Your task to perform on an android device: check data usage Image 0: 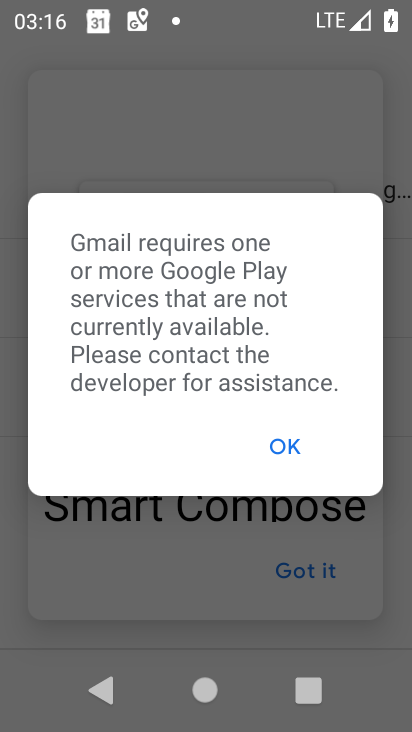
Step 0: click (287, 458)
Your task to perform on an android device: check data usage Image 1: 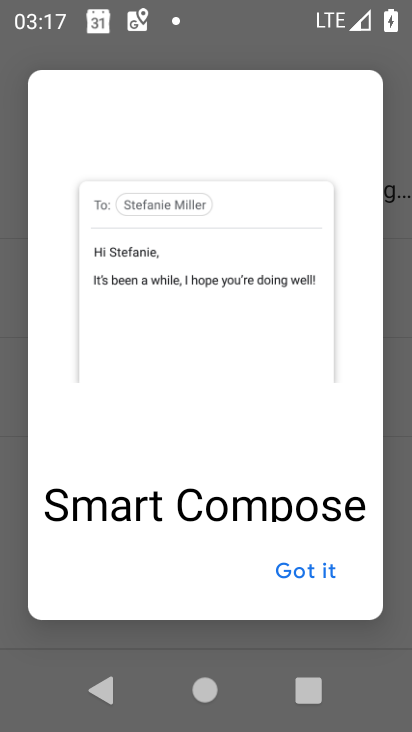
Step 1: press home button
Your task to perform on an android device: check data usage Image 2: 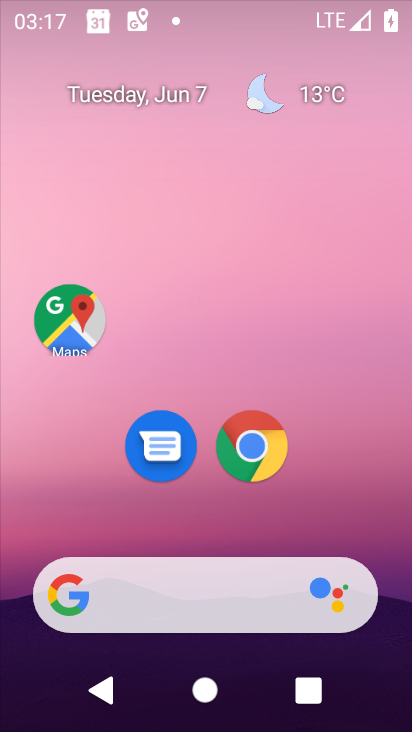
Step 2: drag from (253, 651) to (355, 13)
Your task to perform on an android device: check data usage Image 3: 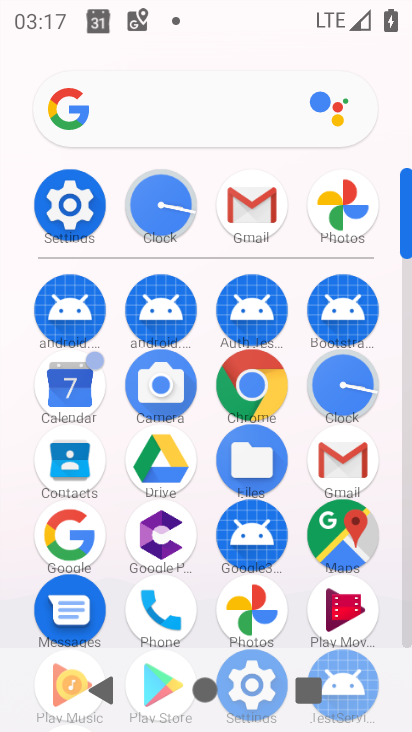
Step 3: click (65, 205)
Your task to perform on an android device: check data usage Image 4: 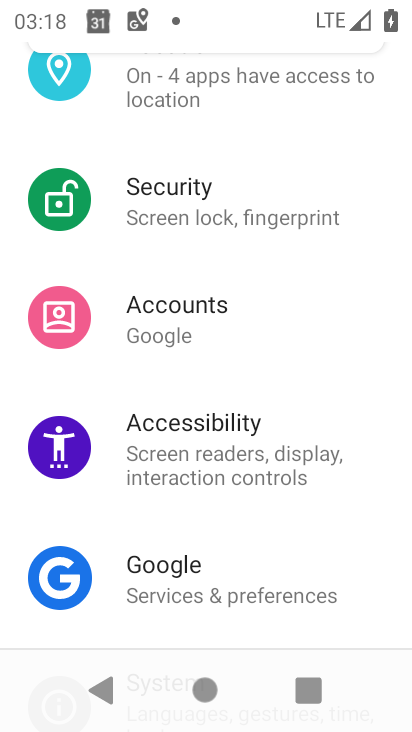
Step 4: drag from (362, 99) to (268, 657)
Your task to perform on an android device: check data usage Image 5: 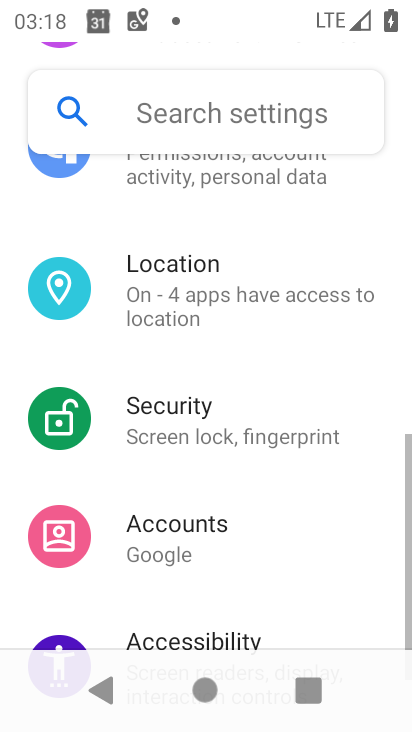
Step 5: drag from (327, 180) to (259, 654)
Your task to perform on an android device: check data usage Image 6: 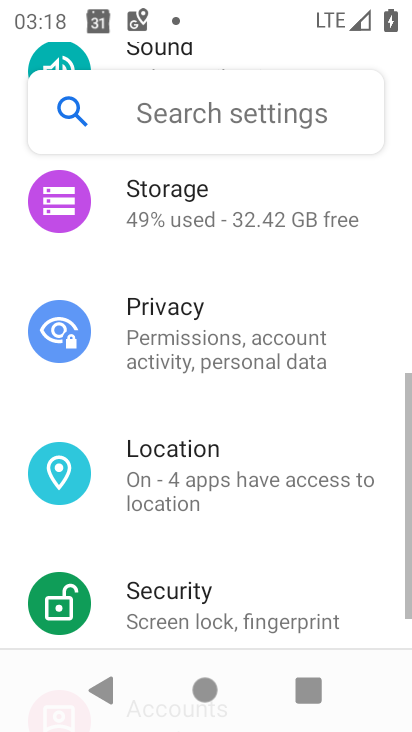
Step 6: drag from (340, 235) to (287, 613)
Your task to perform on an android device: check data usage Image 7: 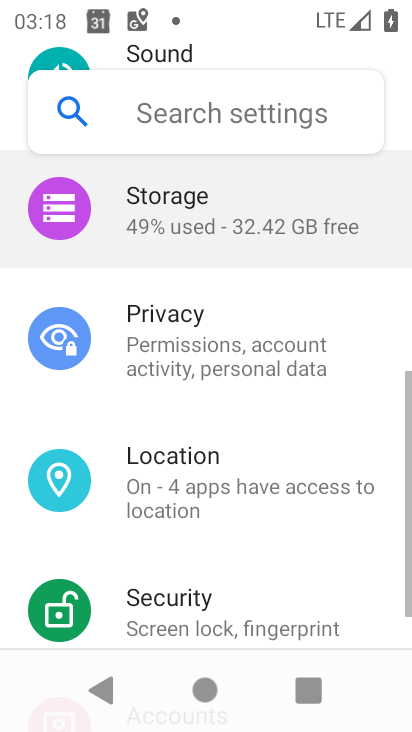
Step 7: drag from (313, 309) to (249, 713)
Your task to perform on an android device: check data usage Image 8: 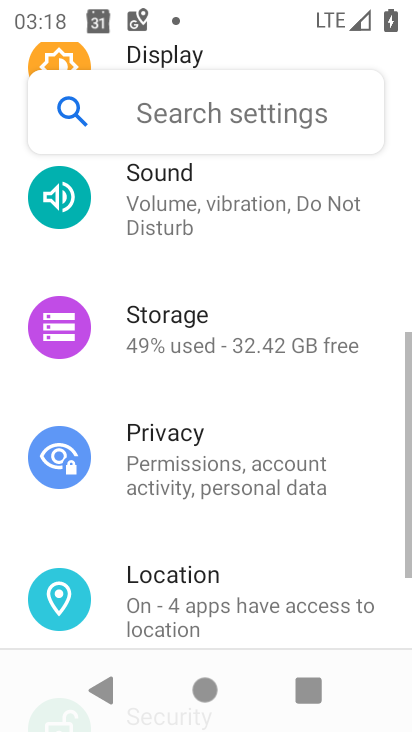
Step 8: drag from (281, 514) to (264, 659)
Your task to perform on an android device: check data usage Image 9: 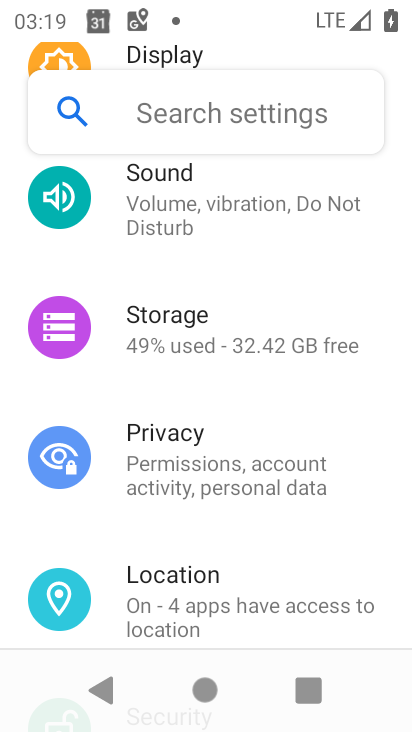
Step 9: drag from (313, 207) to (350, 663)
Your task to perform on an android device: check data usage Image 10: 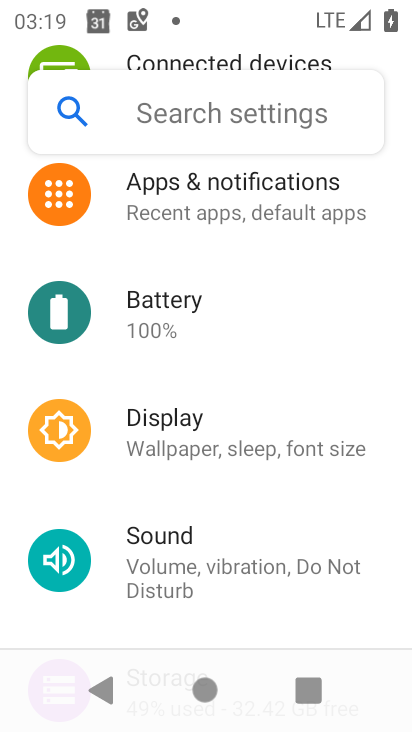
Step 10: drag from (268, 349) to (160, 695)
Your task to perform on an android device: check data usage Image 11: 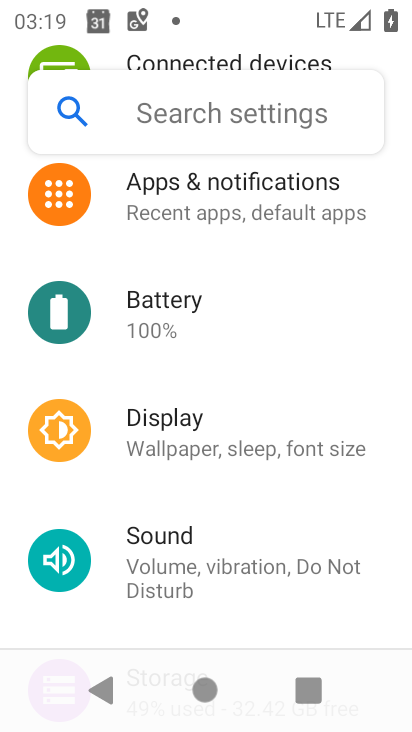
Step 11: drag from (285, 251) to (204, 707)
Your task to perform on an android device: check data usage Image 12: 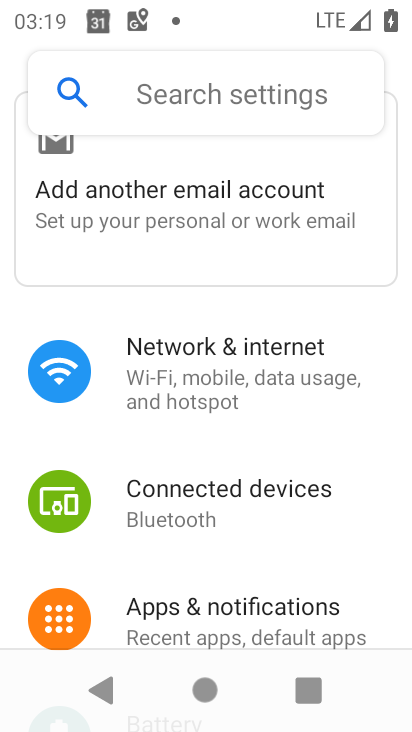
Step 12: click (322, 371)
Your task to perform on an android device: check data usage Image 13: 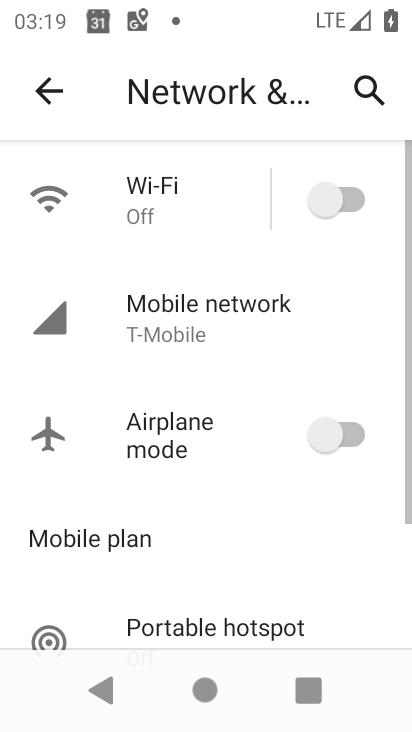
Step 13: click (229, 288)
Your task to perform on an android device: check data usage Image 14: 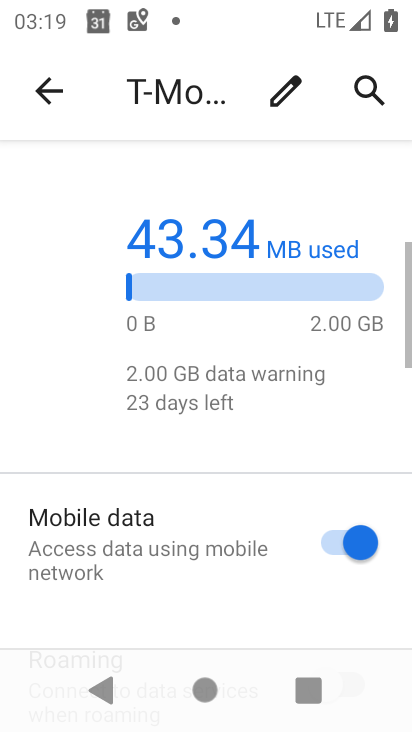
Step 14: task complete